Your task to perform on an android device: Go to settings Image 0: 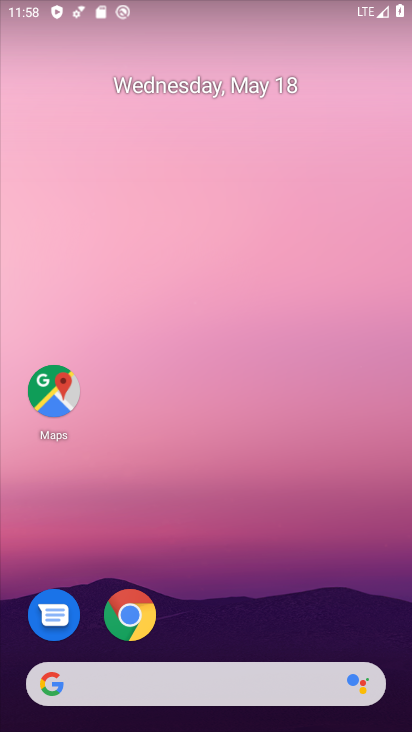
Step 0: drag from (264, 565) to (249, 19)
Your task to perform on an android device: Go to settings Image 1: 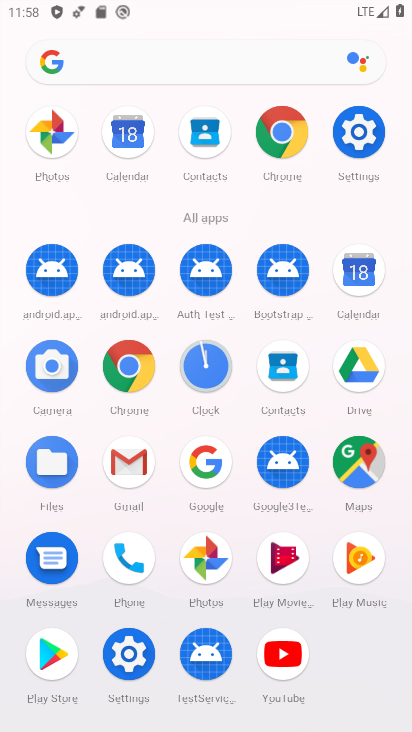
Step 1: drag from (3, 526) to (4, 255)
Your task to perform on an android device: Go to settings Image 2: 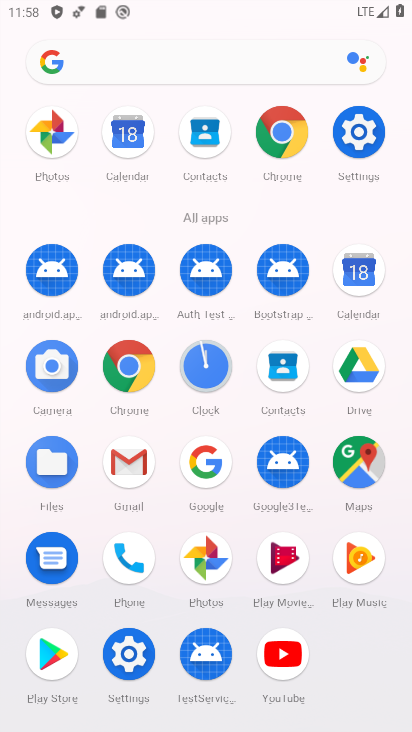
Step 2: click (129, 651)
Your task to perform on an android device: Go to settings Image 3: 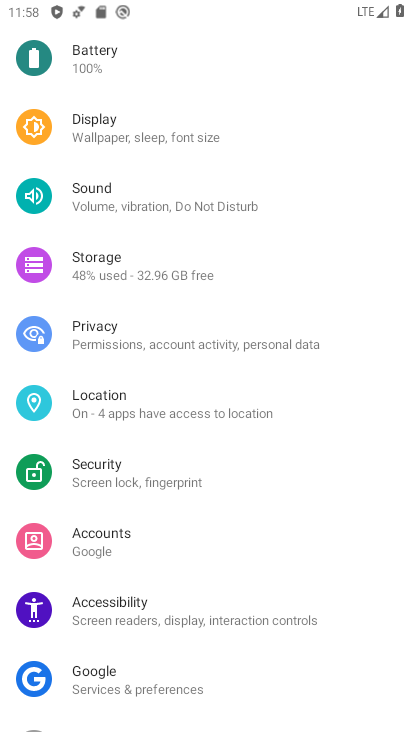
Step 3: task complete